Your task to perform on an android device: When is my next meeting? Image 0: 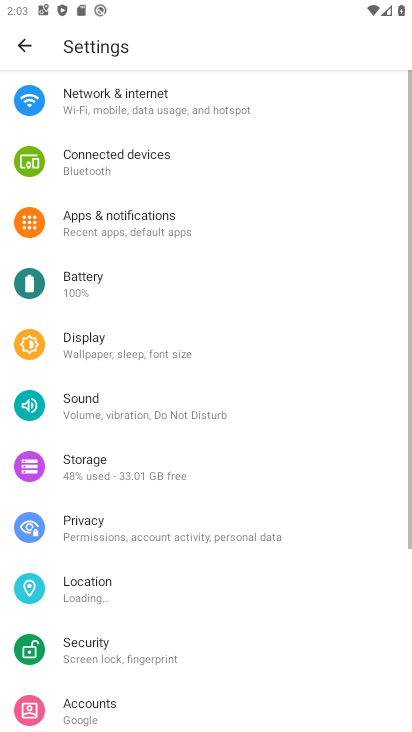
Step 0: press home button
Your task to perform on an android device: When is my next meeting? Image 1: 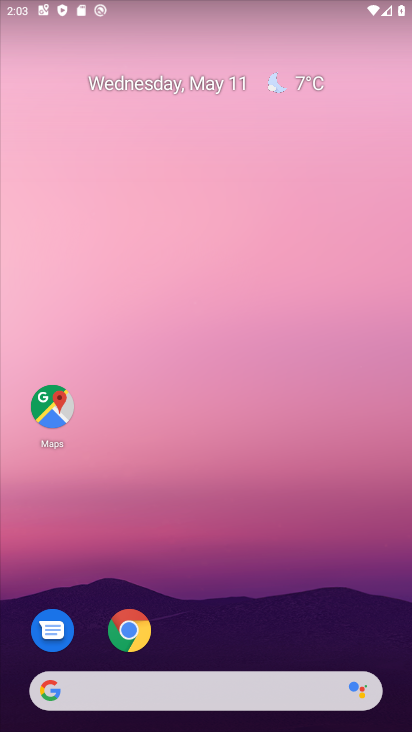
Step 1: drag from (334, 380) to (301, 7)
Your task to perform on an android device: When is my next meeting? Image 2: 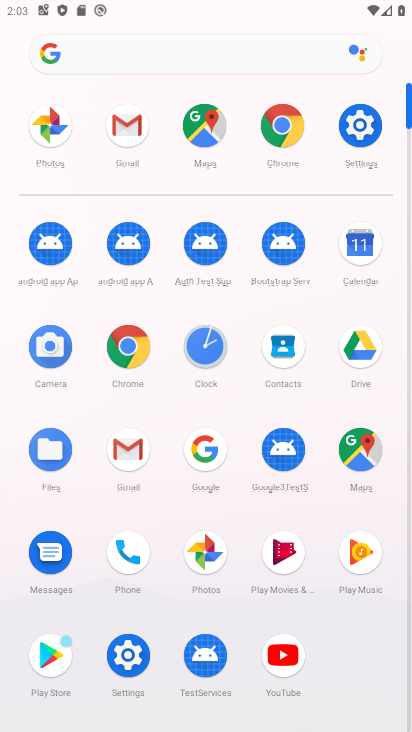
Step 2: click (353, 239)
Your task to perform on an android device: When is my next meeting? Image 3: 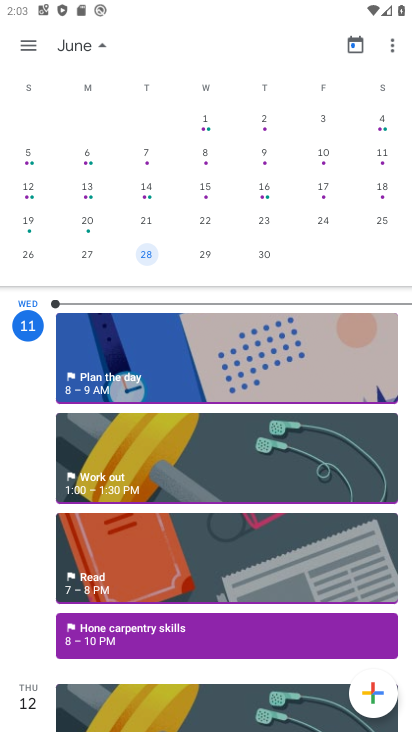
Step 3: task complete